Your task to perform on an android device: change the clock display to analog Image 0: 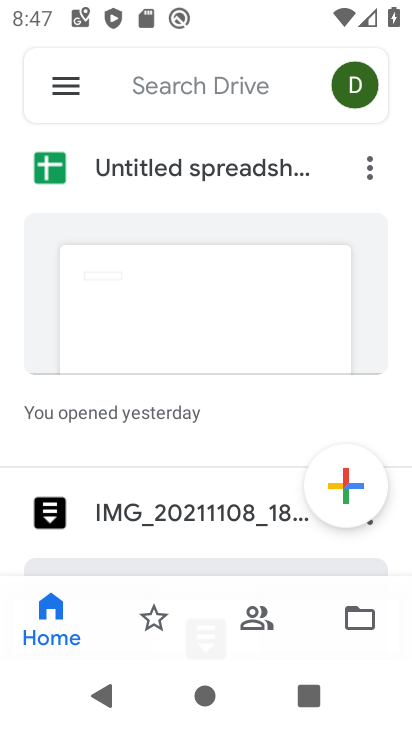
Step 0: press home button
Your task to perform on an android device: change the clock display to analog Image 1: 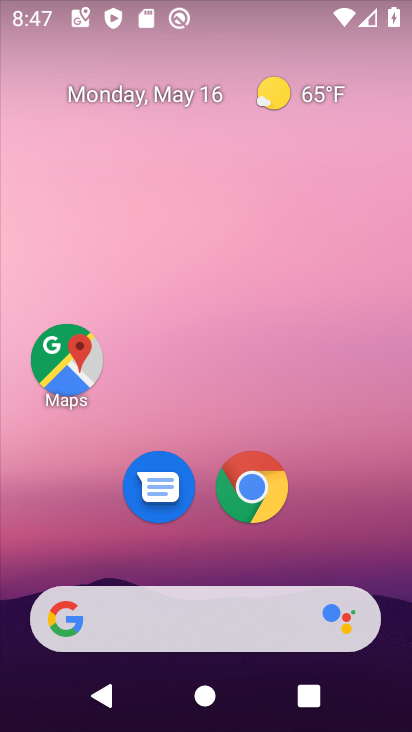
Step 1: drag from (371, 539) to (378, 160)
Your task to perform on an android device: change the clock display to analog Image 2: 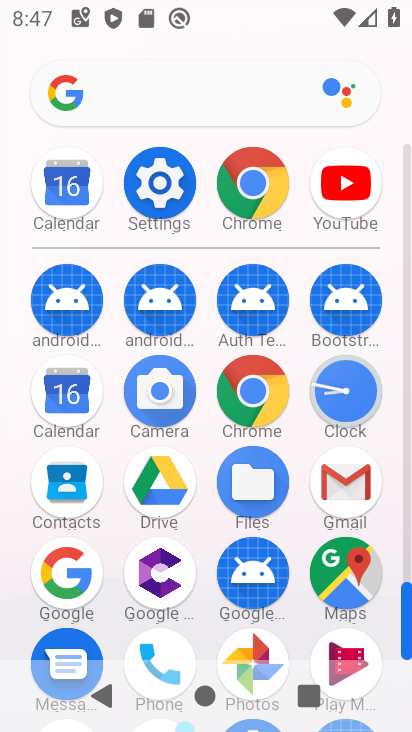
Step 2: click (357, 406)
Your task to perform on an android device: change the clock display to analog Image 3: 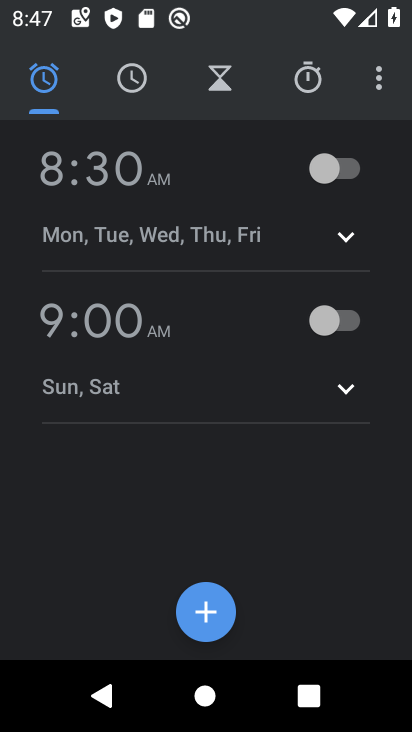
Step 3: click (379, 95)
Your task to perform on an android device: change the clock display to analog Image 4: 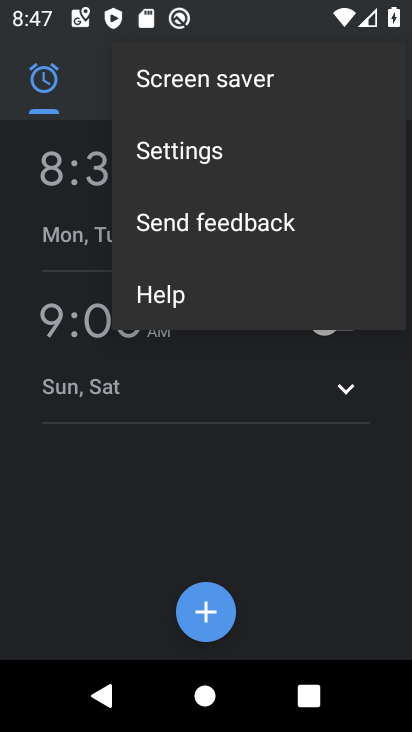
Step 4: click (229, 157)
Your task to perform on an android device: change the clock display to analog Image 5: 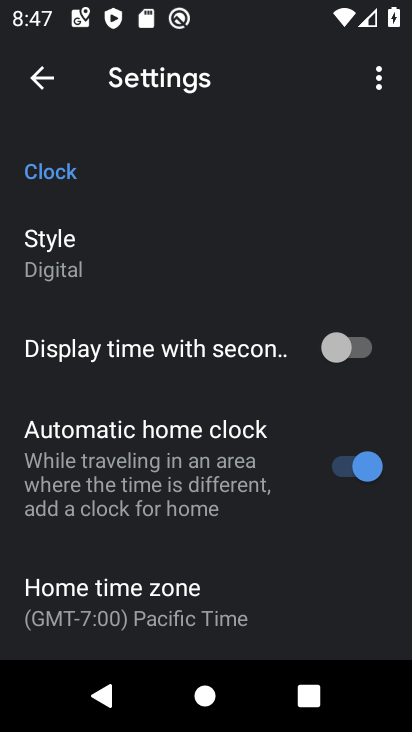
Step 5: click (81, 262)
Your task to perform on an android device: change the clock display to analog Image 6: 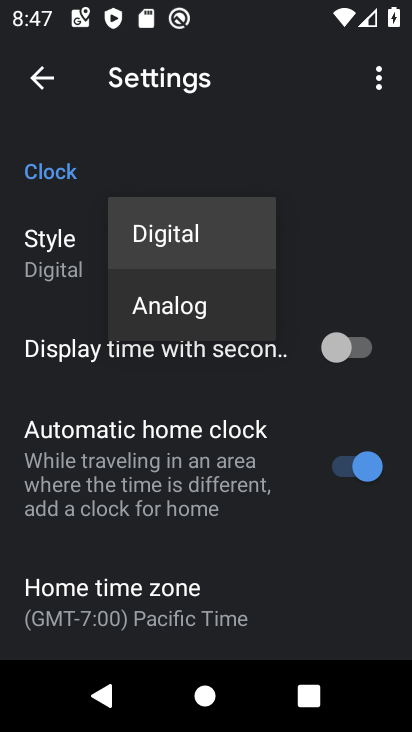
Step 6: click (175, 312)
Your task to perform on an android device: change the clock display to analog Image 7: 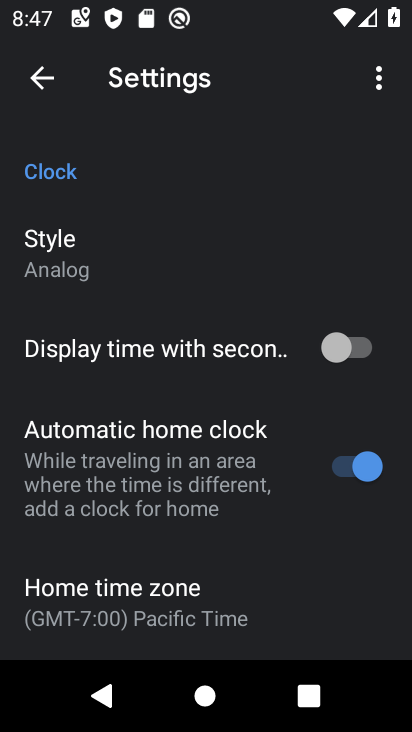
Step 7: task complete